Your task to perform on an android device: install app "Firefox Browser" Image 0: 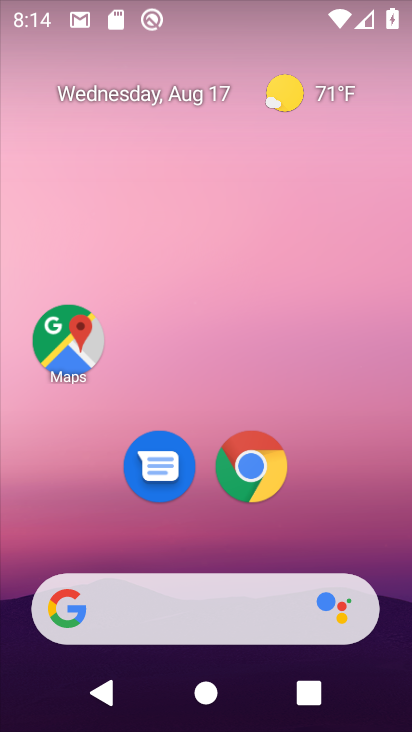
Step 0: drag from (205, 563) to (242, 55)
Your task to perform on an android device: install app "Firefox Browser" Image 1: 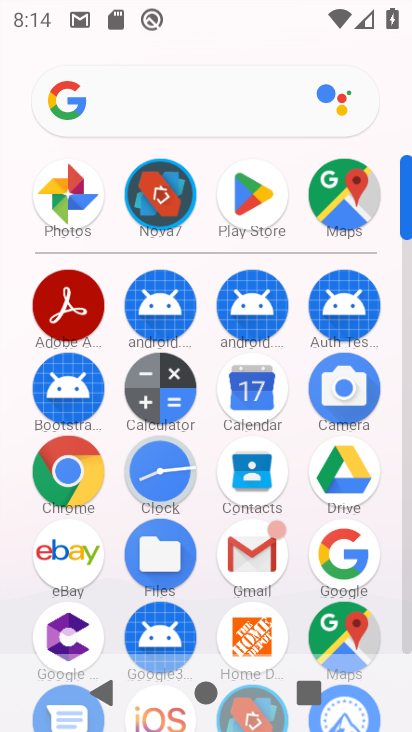
Step 1: click (247, 212)
Your task to perform on an android device: install app "Firefox Browser" Image 2: 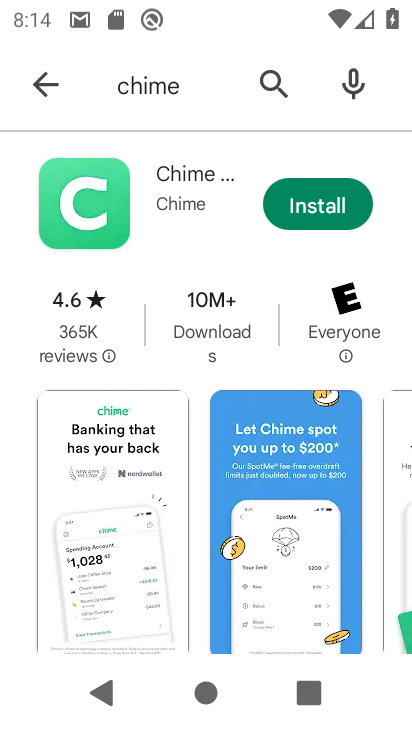
Step 2: click (181, 94)
Your task to perform on an android device: install app "Firefox Browser" Image 3: 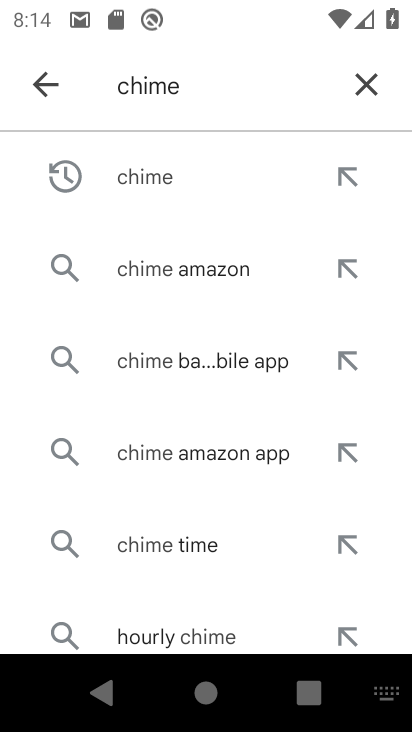
Step 3: click (360, 88)
Your task to perform on an android device: install app "Firefox Browser" Image 4: 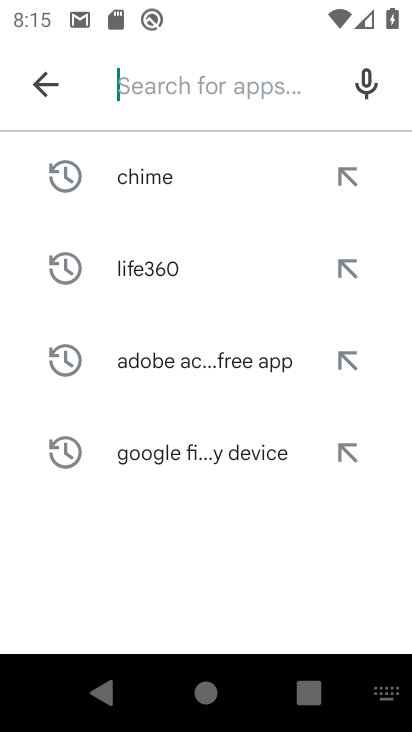
Step 4: type "firefox browser"
Your task to perform on an android device: install app "Firefox Browser" Image 5: 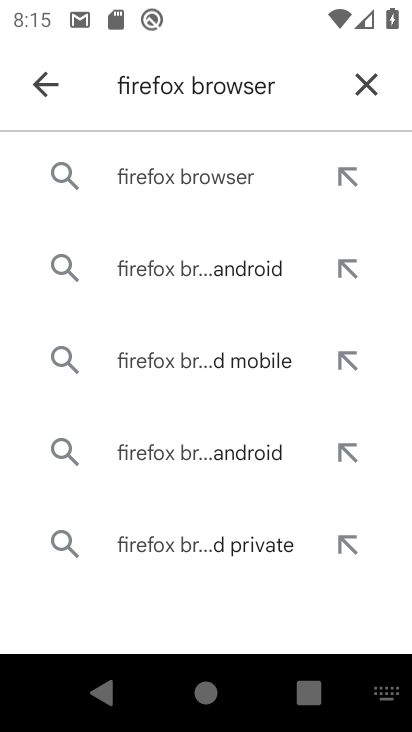
Step 5: click (156, 172)
Your task to perform on an android device: install app "Firefox Browser" Image 6: 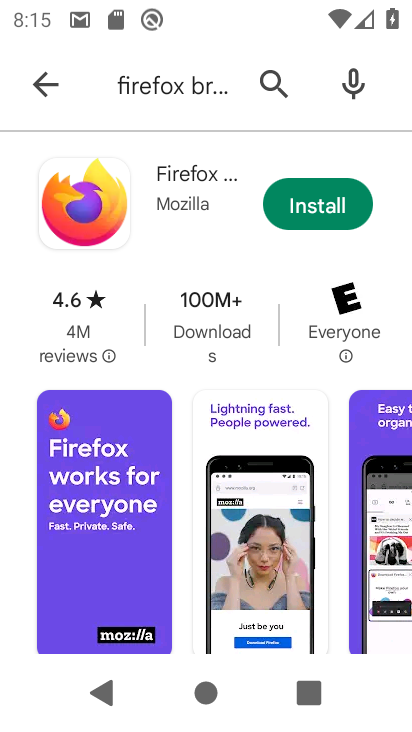
Step 6: click (325, 197)
Your task to perform on an android device: install app "Firefox Browser" Image 7: 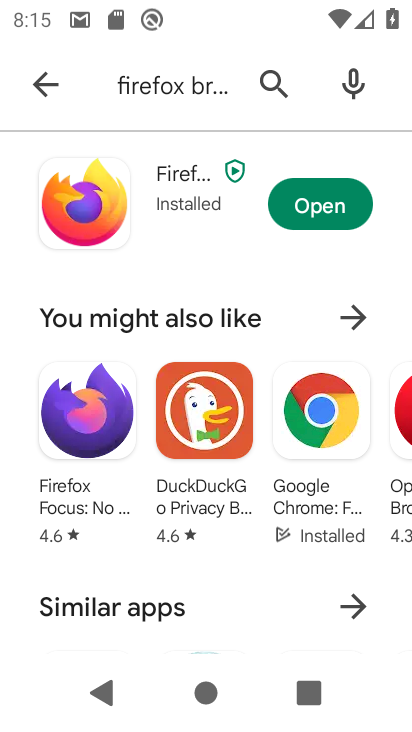
Step 7: task complete